Your task to perform on an android device: Is it going to rain tomorrow? Image 0: 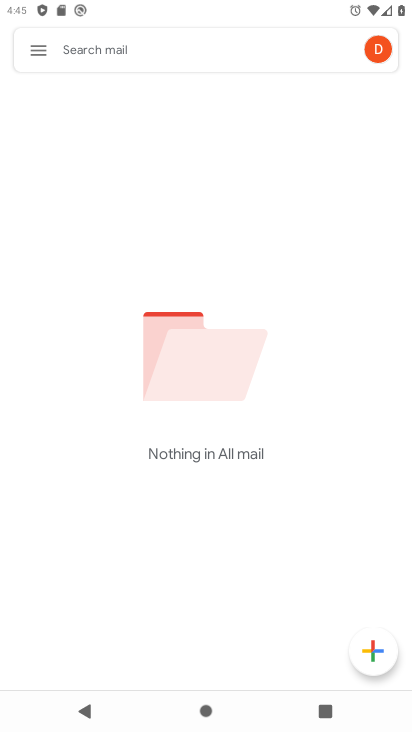
Step 0: press home button
Your task to perform on an android device: Is it going to rain tomorrow? Image 1: 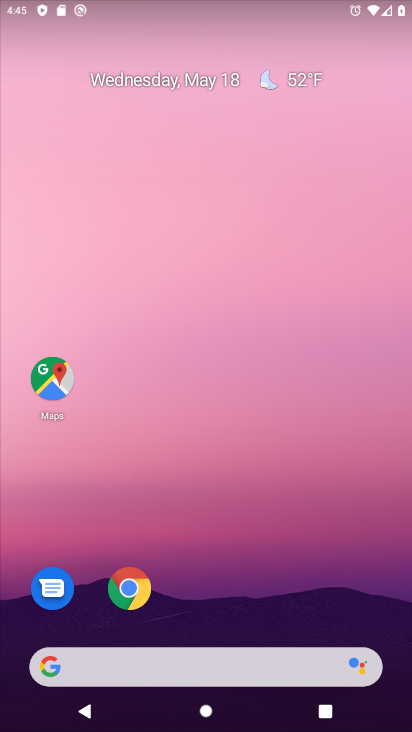
Step 1: click (287, 82)
Your task to perform on an android device: Is it going to rain tomorrow? Image 2: 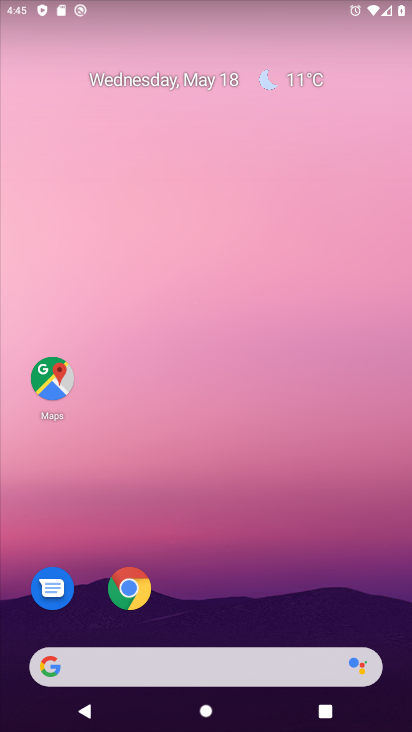
Step 2: click (299, 88)
Your task to perform on an android device: Is it going to rain tomorrow? Image 3: 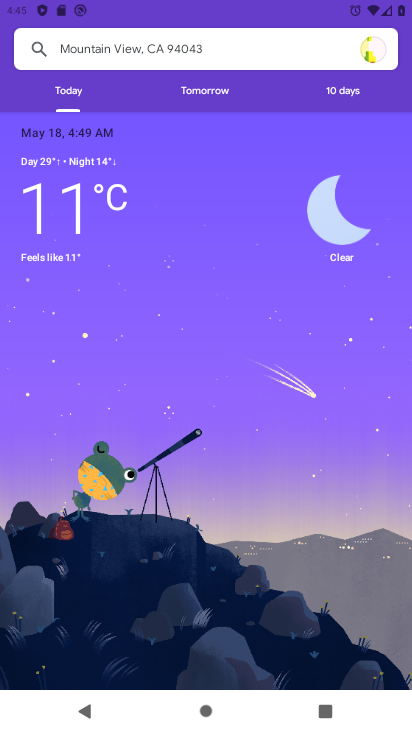
Step 3: click (231, 100)
Your task to perform on an android device: Is it going to rain tomorrow? Image 4: 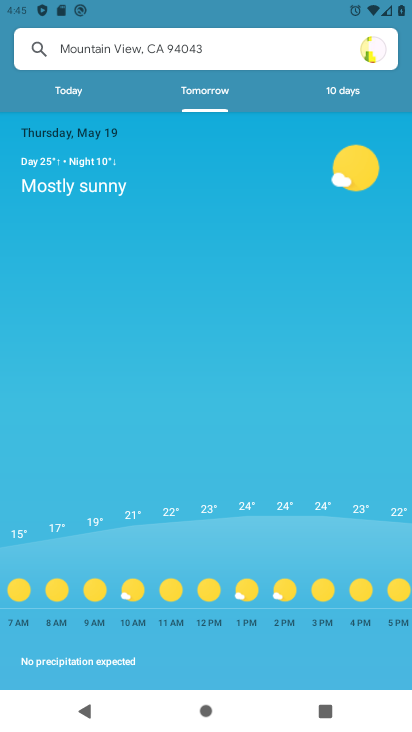
Step 4: task complete